Your task to perform on an android device: Is it going to rain this weekend? Image 0: 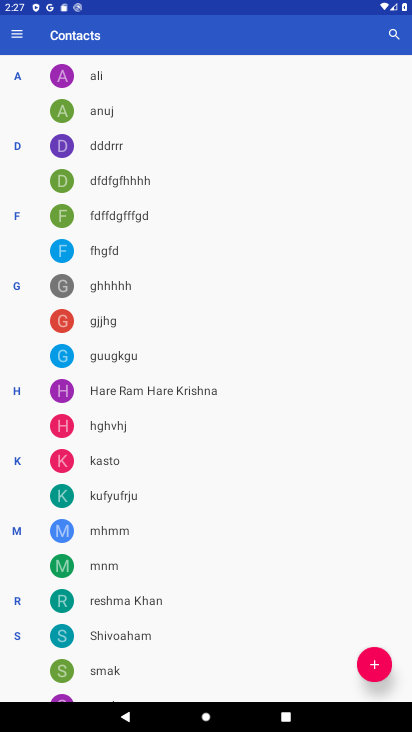
Step 0: press home button
Your task to perform on an android device: Is it going to rain this weekend? Image 1: 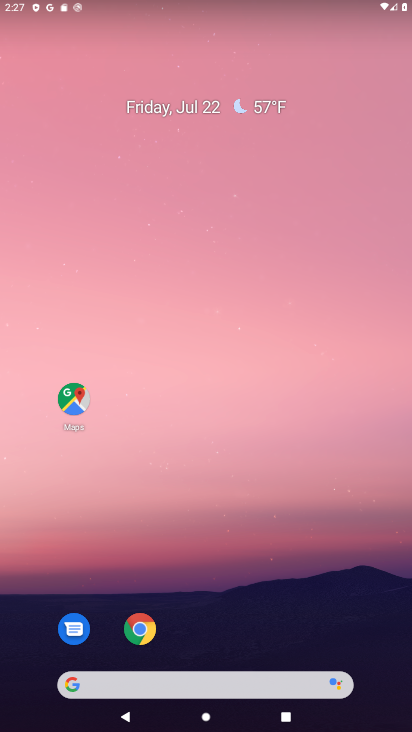
Step 1: drag from (233, 619) to (266, 8)
Your task to perform on an android device: Is it going to rain this weekend? Image 2: 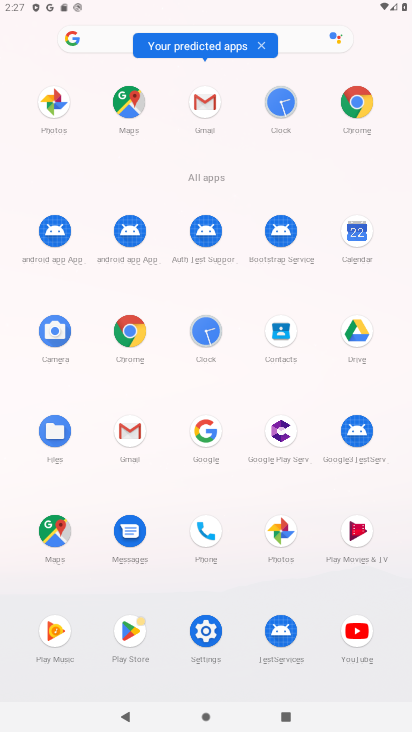
Step 2: drag from (198, 433) to (57, 147)
Your task to perform on an android device: Is it going to rain this weekend? Image 3: 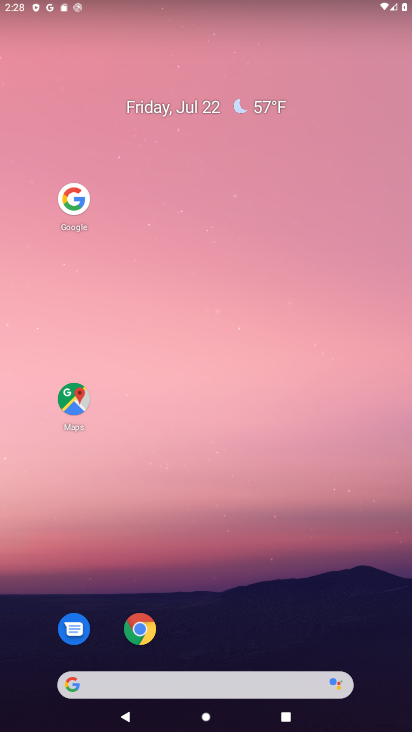
Step 3: click (77, 191)
Your task to perform on an android device: Is it going to rain this weekend? Image 4: 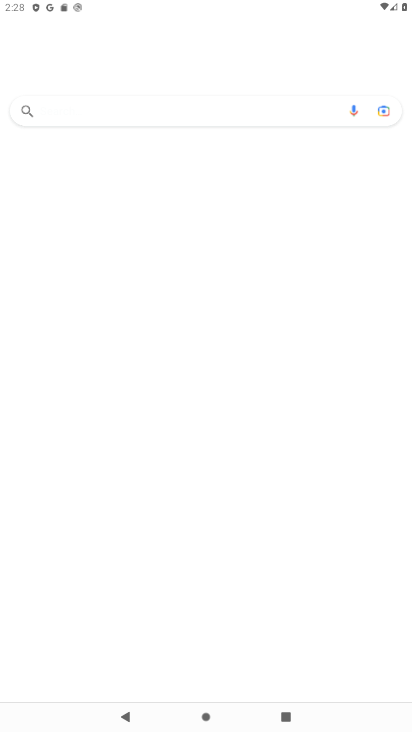
Step 4: click (77, 191)
Your task to perform on an android device: Is it going to rain this weekend? Image 5: 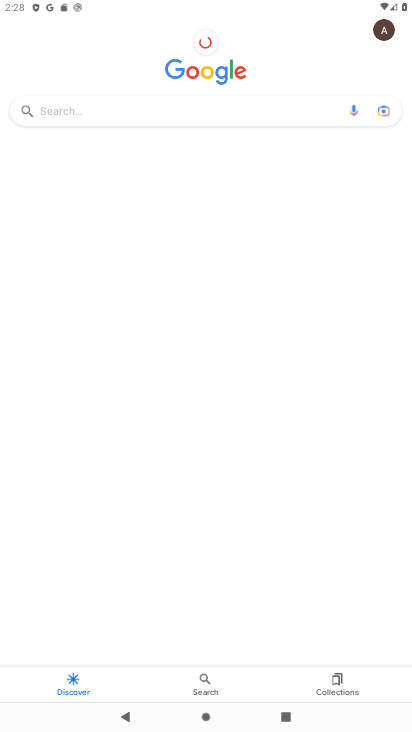
Step 5: click (139, 113)
Your task to perform on an android device: Is it going to rain this weekend? Image 6: 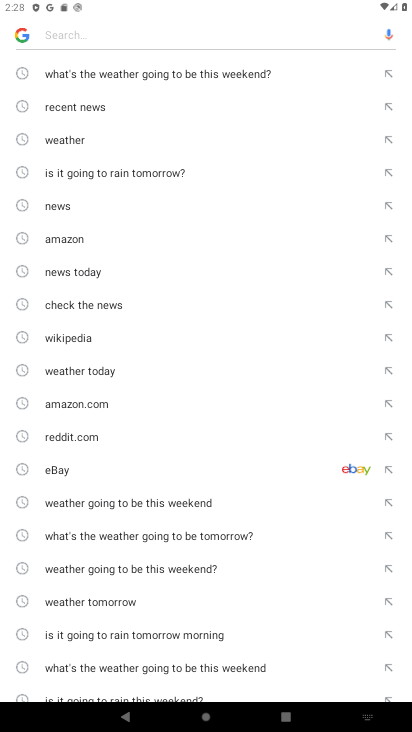
Step 6: click (76, 136)
Your task to perform on an android device: Is it going to rain this weekend? Image 7: 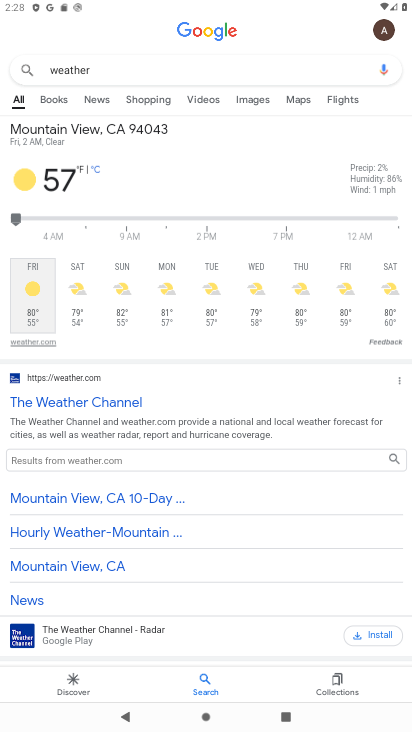
Step 7: click (74, 270)
Your task to perform on an android device: Is it going to rain this weekend? Image 8: 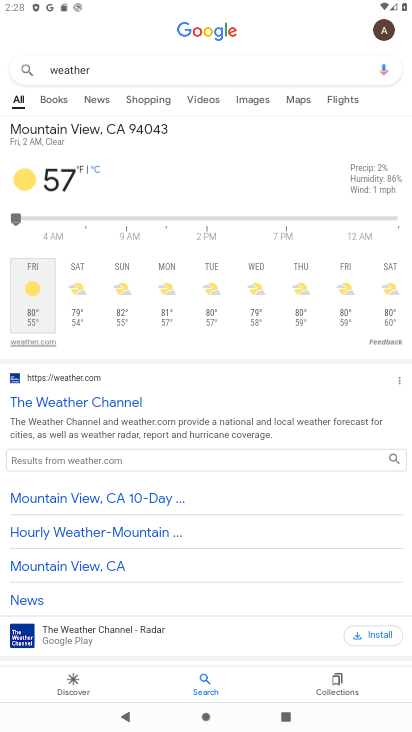
Step 8: click (79, 268)
Your task to perform on an android device: Is it going to rain this weekend? Image 9: 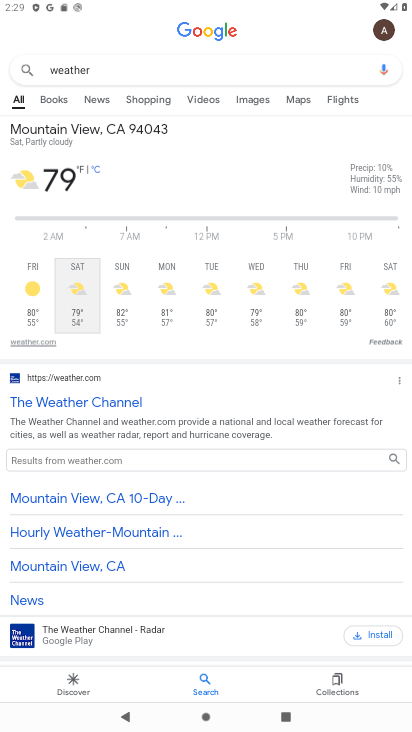
Step 9: task complete